Your task to perform on an android device: turn on sleep mode Image 0: 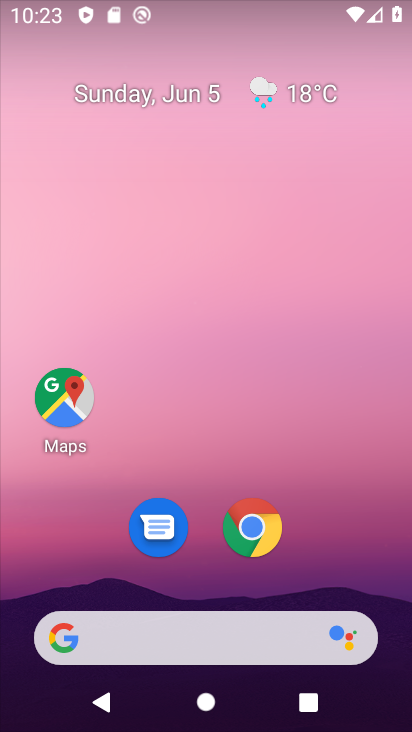
Step 0: drag from (364, 572) to (343, 74)
Your task to perform on an android device: turn on sleep mode Image 1: 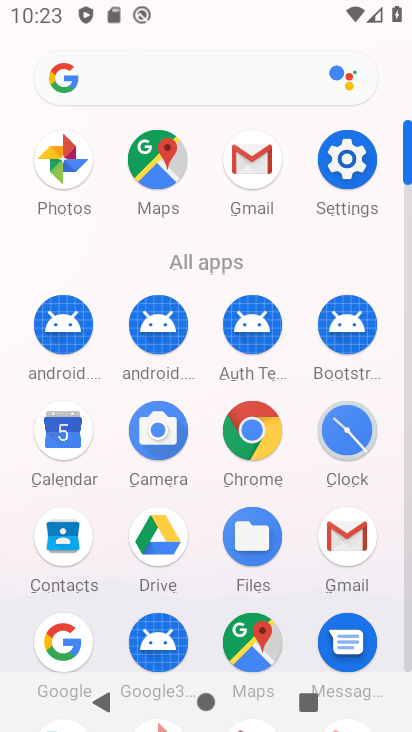
Step 1: click (347, 171)
Your task to perform on an android device: turn on sleep mode Image 2: 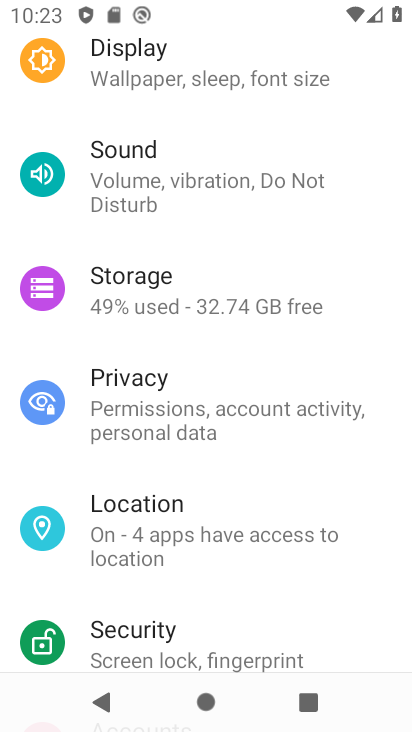
Step 2: click (214, 101)
Your task to perform on an android device: turn on sleep mode Image 3: 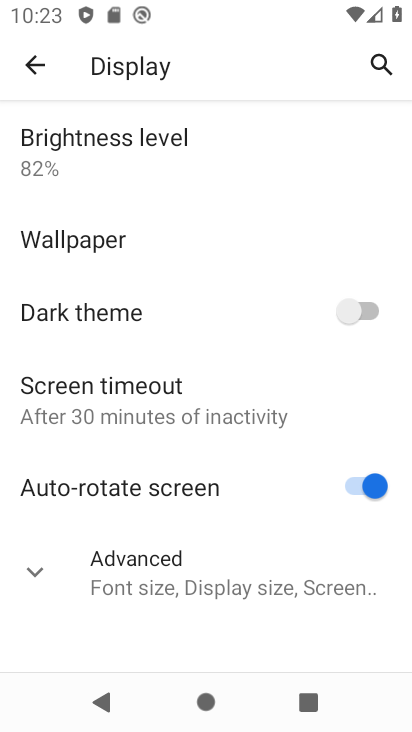
Step 3: task complete